Your task to perform on an android device: Play the last video I watched on Youtube Image 0: 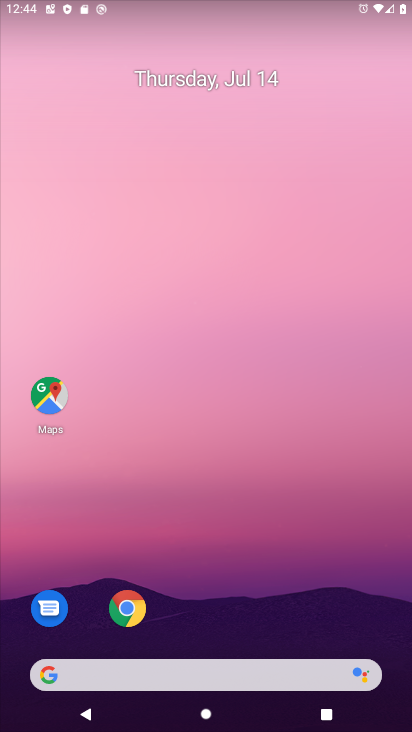
Step 0: drag from (212, 675) to (222, 137)
Your task to perform on an android device: Play the last video I watched on Youtube Image 1: 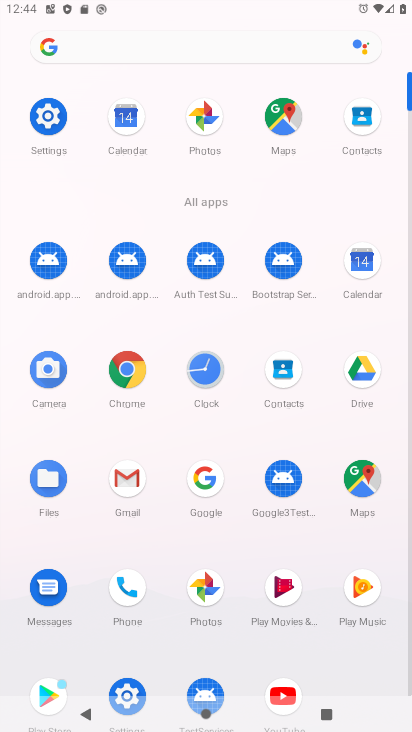
Step 1: drag from (228, 571) to (259, 300)
Your task to perform on an android device: Play the last video I watched on Youtube Image 2: 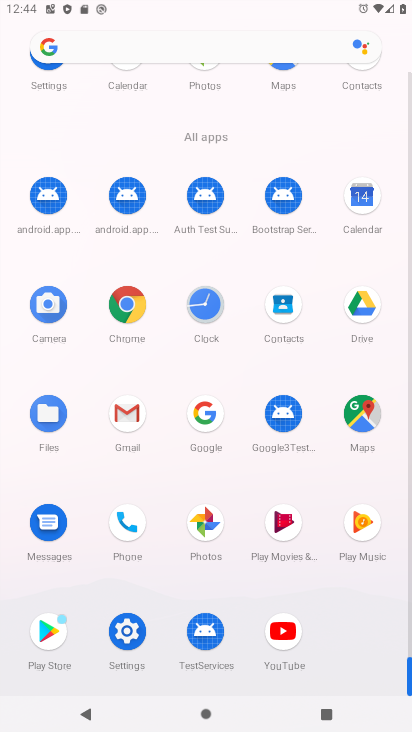
Step 2: click (285, 632)
Your task to perform on an android device: Play the last video I watched on Youtube Image 3: 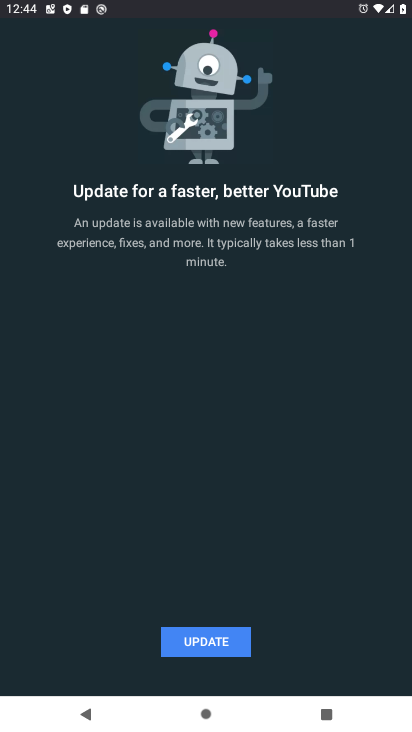
Step 3: click (233, 646)
Your task to perform on an android device: Play the last video I watched on Youtube Image 4: 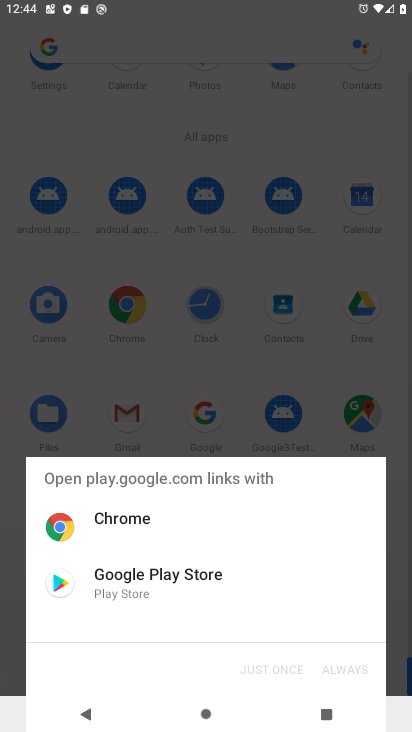
Step 4: click (195, 581)
Your task to perform on an android device: Play the last video I watched on Youtube Image 5: 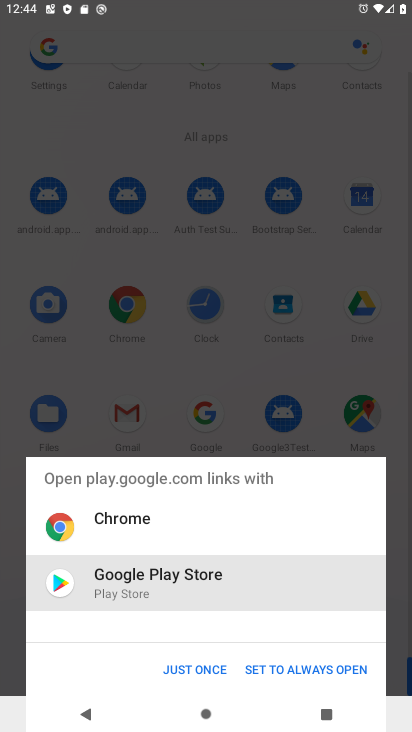
Step 5: click (189, 665)
Your task to perform on an android device: Play the last video I watched on Youtube Image 6: 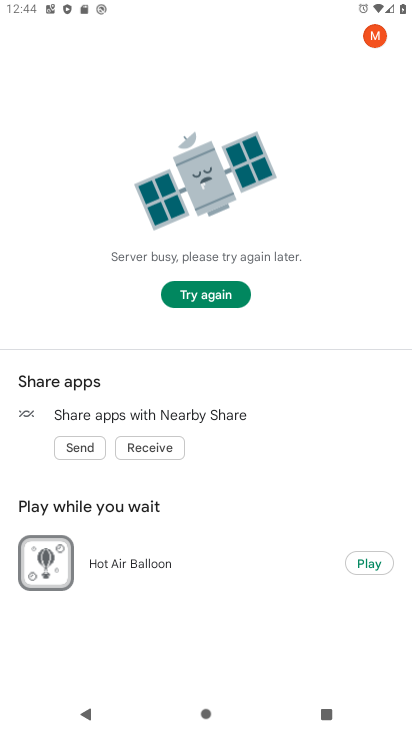
Step 6: click (206, 304)
Your task to perform on an android device: Play the last video I watched on Youtube Image 7: 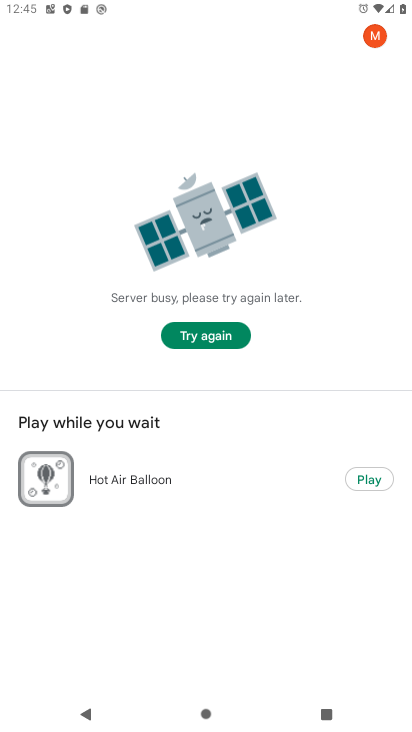
Step 7: click (212, 338)
Your task to perform on an android device: Play the last video I watched on Youtube Image 8: 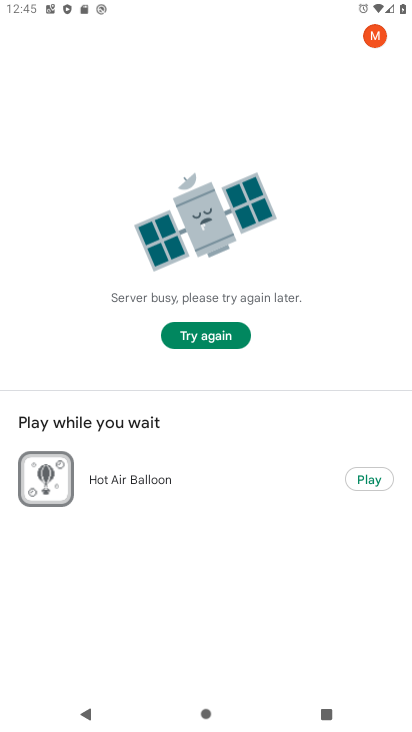
Step 8: click (212, 338)
Your task to perform on an android device: Play the last video I watched on Youtube Image 9: 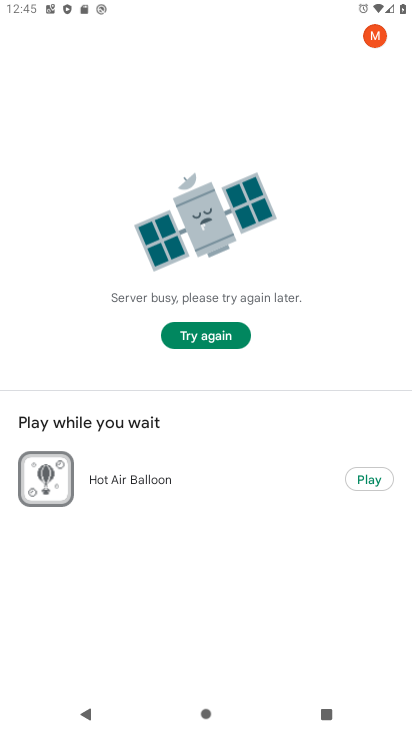
Step 9: click (212, 338)
Your task to perform on an android device: Play the last video I watched on Youtube Image 10: 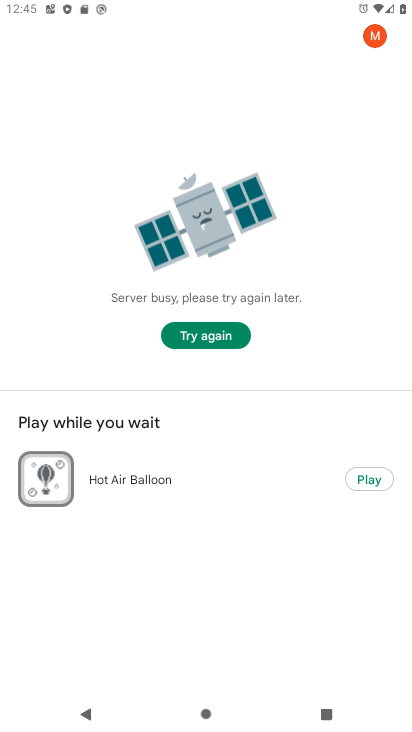
Step 10: click (212, 338)
Your task to perform on an android device: Play the last video I watched on Youtube Image 11: 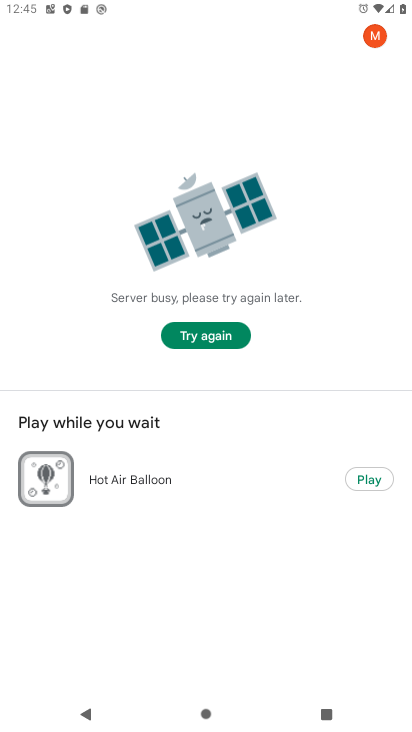
Step 11: click (212, 338)
Your task to perform on an android device: Play the last video I watched on Youtube Image 12: 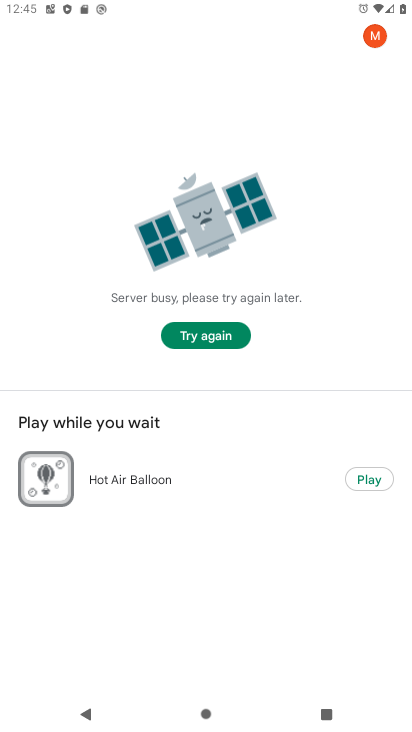
Step 12: task complete